Your task to perform on an android device: Go to calendar. Show me events next week Image 0: 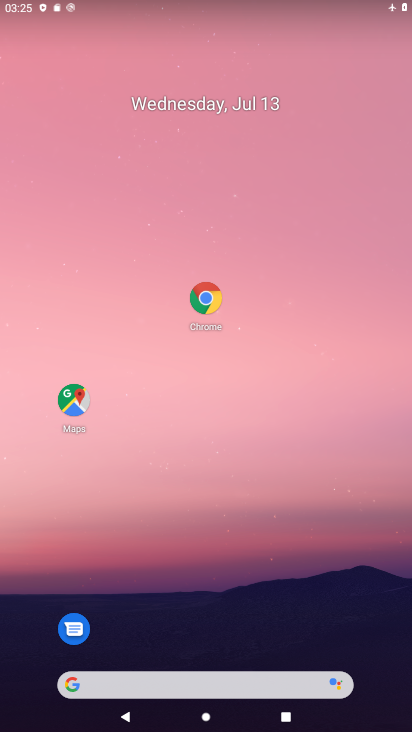
Step 0: drag from (285, 581) to (334, 156)
Your task to perform on an android device: Go to calendar. Show me events next week Image 1: 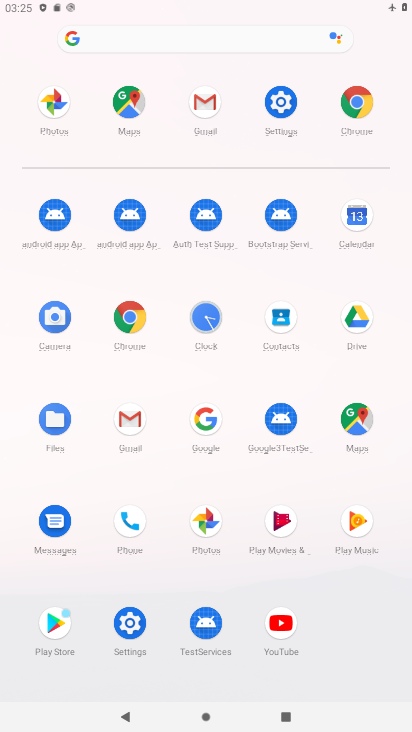
Step 1: click (378, 213)
Your task to perform on an android device: Go to calendar. Show me events next week Image 2: 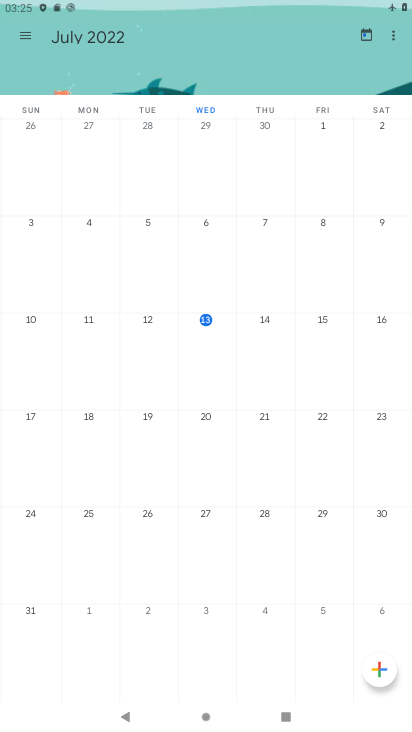
Step 2: click (29, 34)
Your task to perform on an android device: Go to calendar. Show me events next week Image 3: 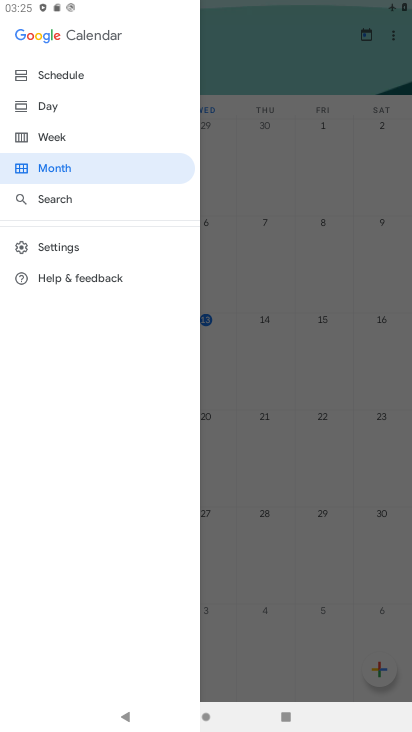
Step 3: click (56, 134)
Your task to perform on an android device: Go to calendar. Show me events next week Image 4: 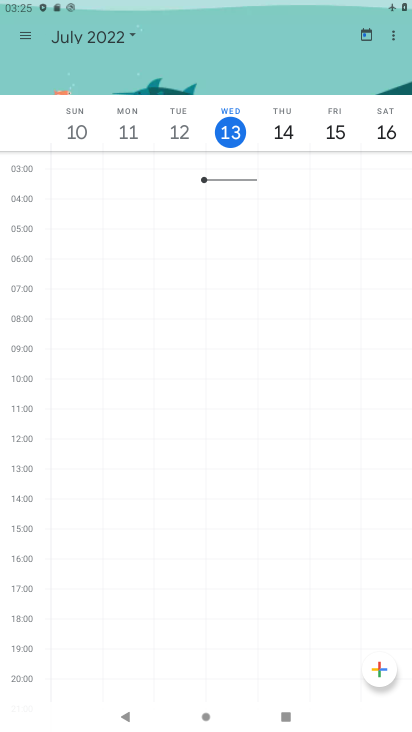
Step 4: task complete